Your task to perform on an android device: see tabs open on other devices in the chrome app Image 0: 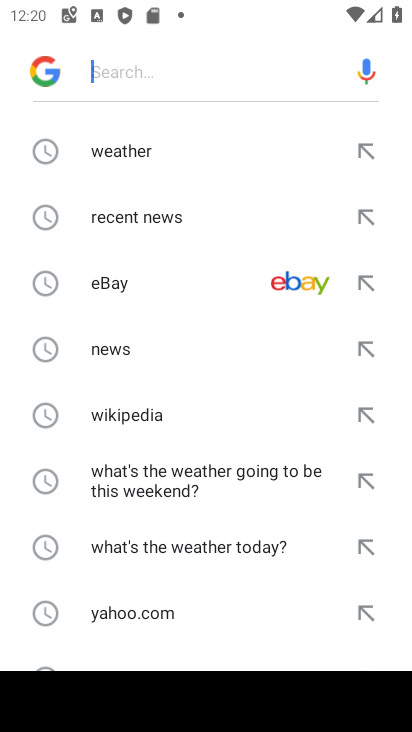
Step 0: press home button
Your task to perform on an android device: see tabs open on other devices in the chrome app Image 1: 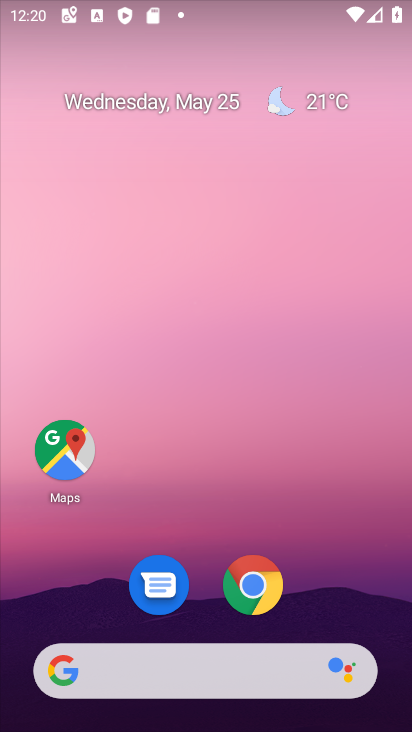
Step 1: drag from (196, 528) to (232, 130)
Your task to perform on an android device: see tabs open on other devices in the chrome app Image 2: 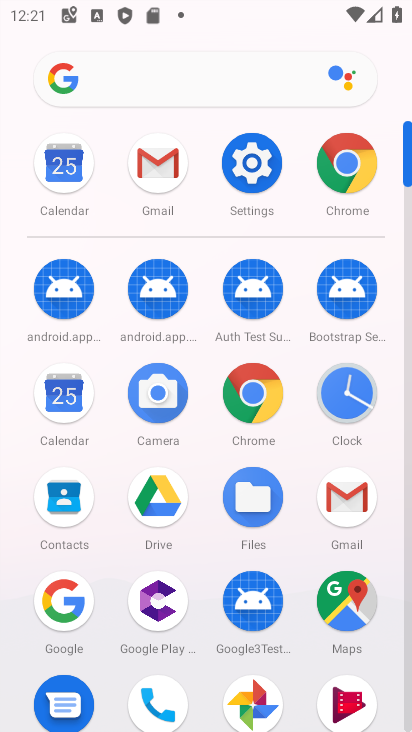
Step 2: click (252, 383)
Your task to perform on an android device: see tabs open on other devices in the chrome app Image 3: 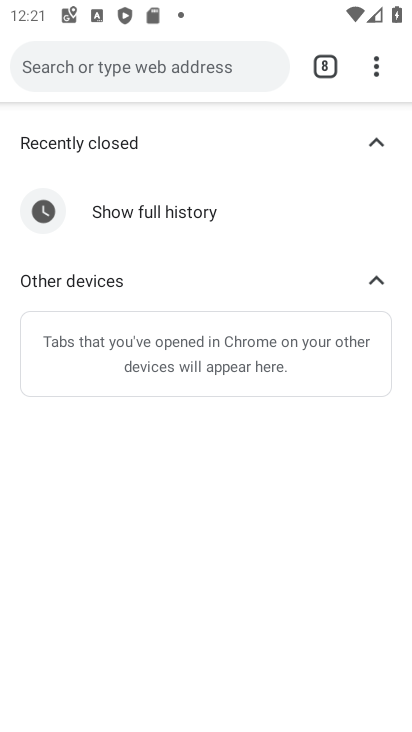
Step 3: task complete